Your task to perform on an android device: What's on my calendar today? Image 0: 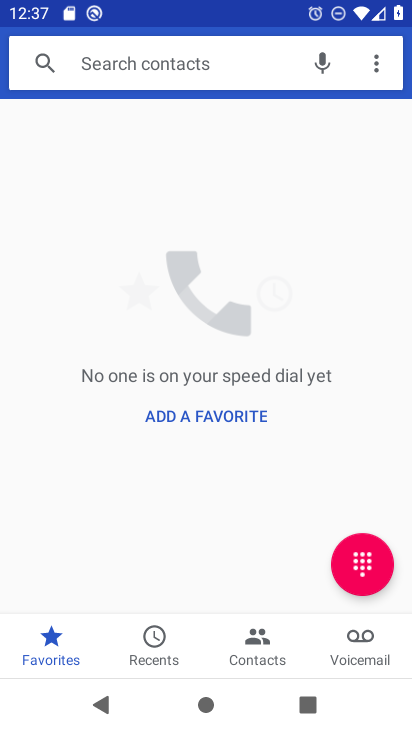
Step 0: press home button
Your task to perform on an android device: What's on my calendar today? Image 1: 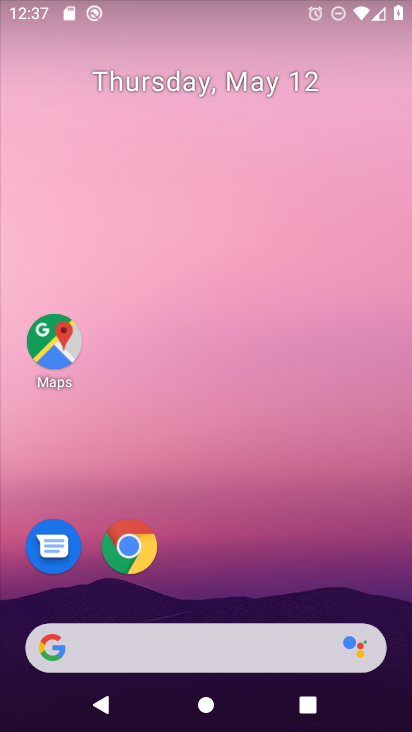
Step 1: drag from (390, 640) to (315, 102)
Your task to perform on an android device: What's on my calendar today? Image 2: 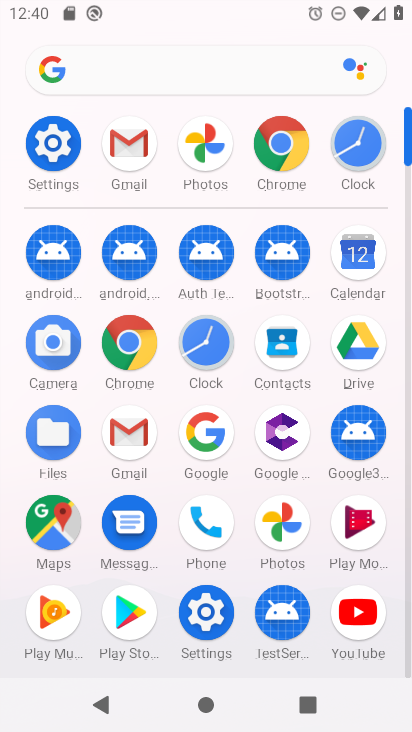
Step 2: click (361, 251)
Your task to perform on an android device: What's on my calendar today? Image 3: 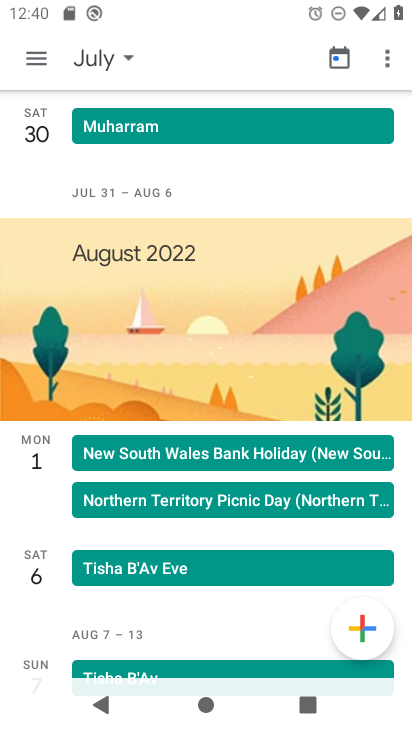
Step 3: click (112, 69)
Your task to perform on an android device: What's on my calendar today? Image 4: 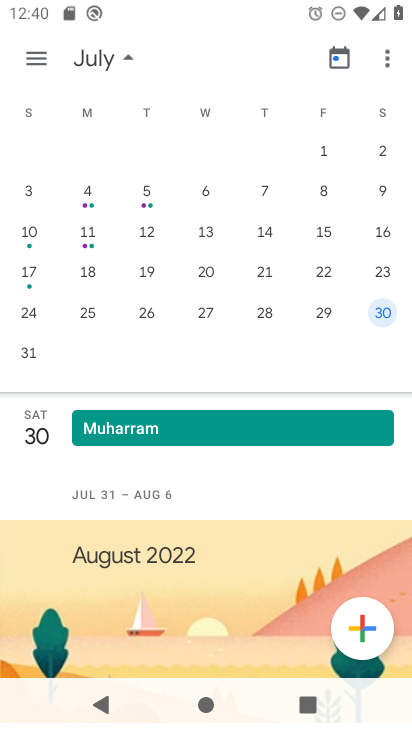
Step 4: drag from (93, 258) to (411, 248)
Your task to perform on an android device: What's on my calendar today? Image 5: 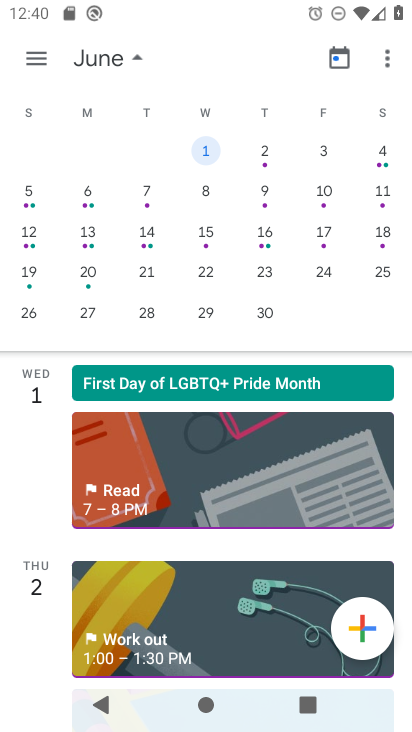
Step 5: drag from (74, 220) to (401, 216)
Your task to perform on an android device: What's on my calendar today? Image 6: 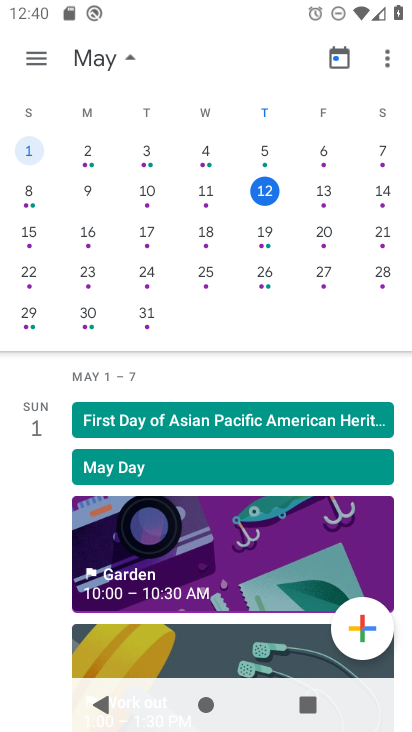
Step 6: click (259, 199)
Your task to perform on an android device: What's on my calendar today? Image 7: 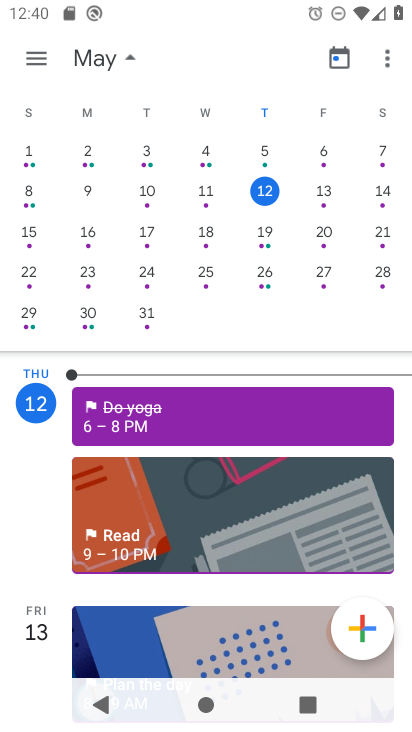
Step 7: task complete